Your task to perform on an android device: Open network settings Image 0: 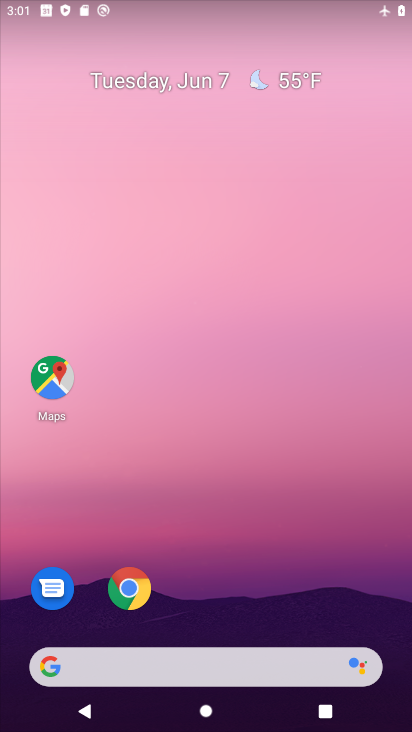
Step 0: drag from (307, 549) to (222, 68)
Your task to perform on an android device: Open network settings Image 1: 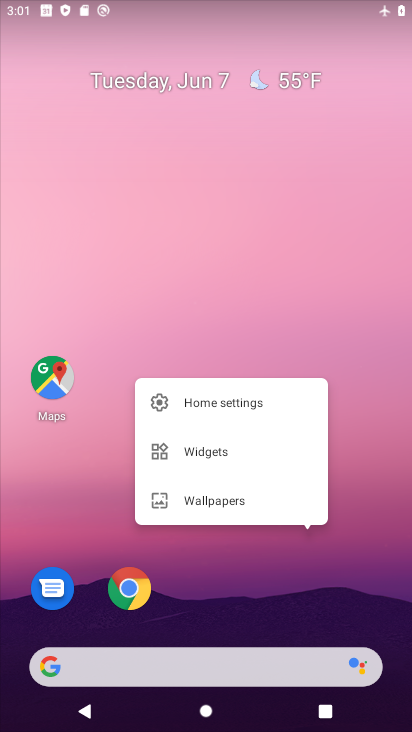
Step 1: press home button
Your task to perform on an android device: Open network settings Image 2: 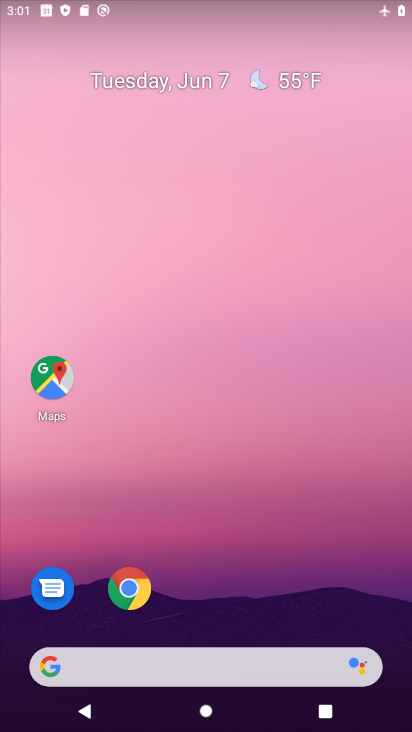
Step 2: drag from (277, 582) to (208, 53)
Your task to perform on an android device: Open network settings Image 3: 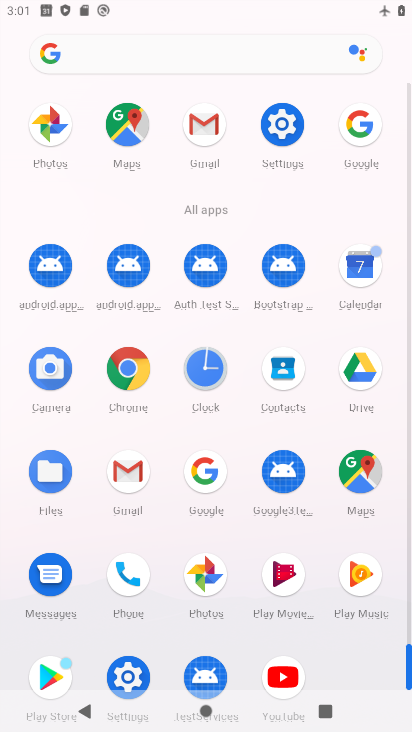
Step 3: click (135, 676)
Your task to perform on an android device: Open network settings Image 4: 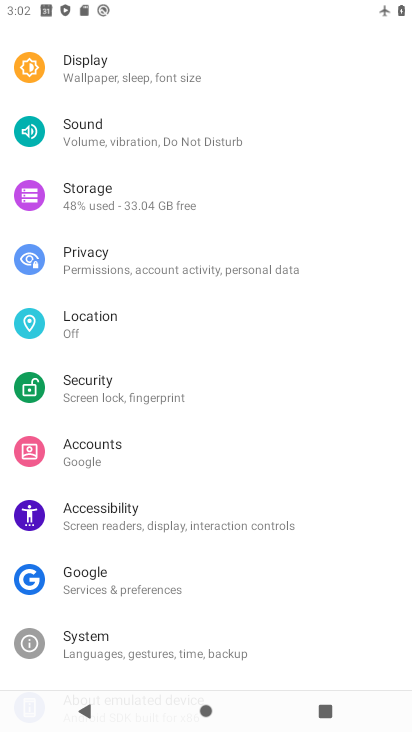
Step 4: press home button
Your task to perform on an android device: Open network settings Image 5: 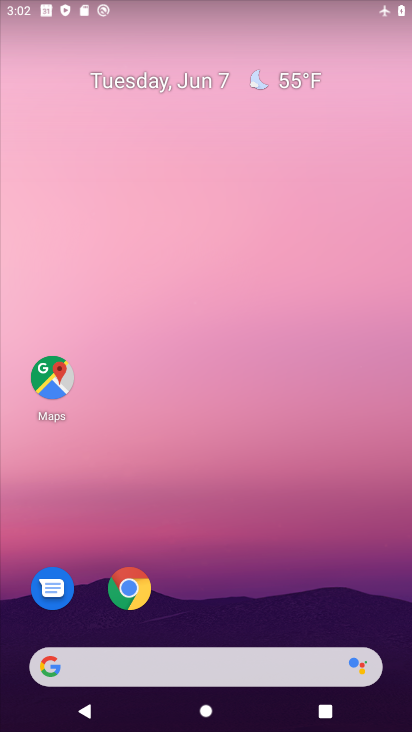
Step 5: drag from (232, 615) to (362, 14)
Your task to perform on an android device: Open network settings Image 6: 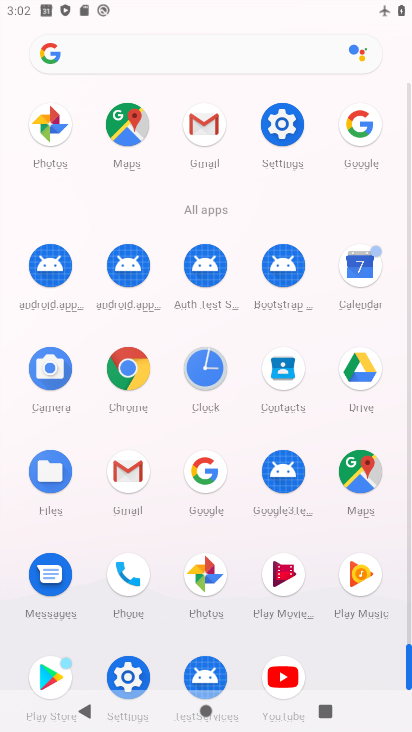
Step 6: click (293, 136)
Your task to perform on an android device: Open network settings Image 7: 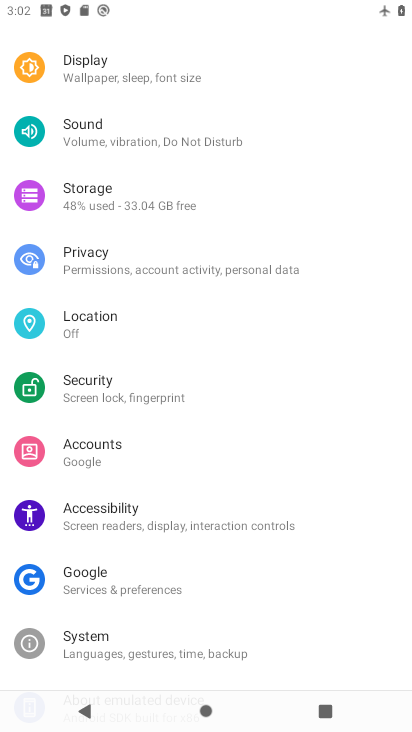
Step 7: drag from (261, 104) to (147, 686)
Your task to perform on an android device: Open network settings Image 8: 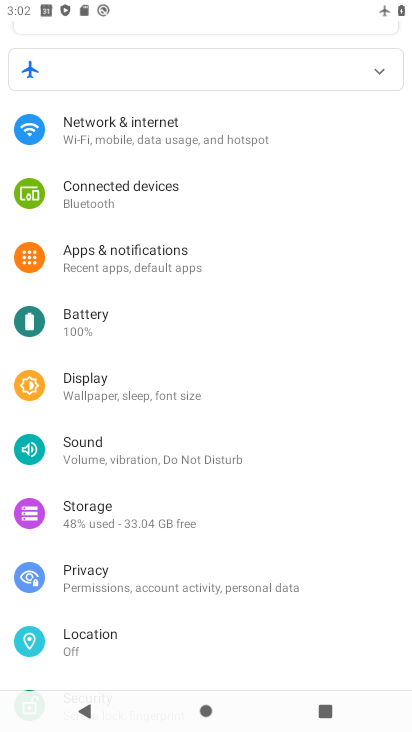
Step 8: click (120, 134)
Your task to perform on an android device: Open network settings Image 9: 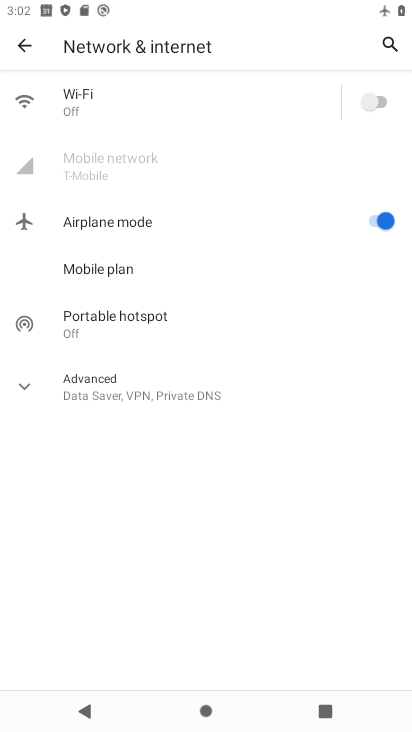
Step 9: task complete